Your task to perform on an android device: What's the weather going to be tomorrow? Image 0: 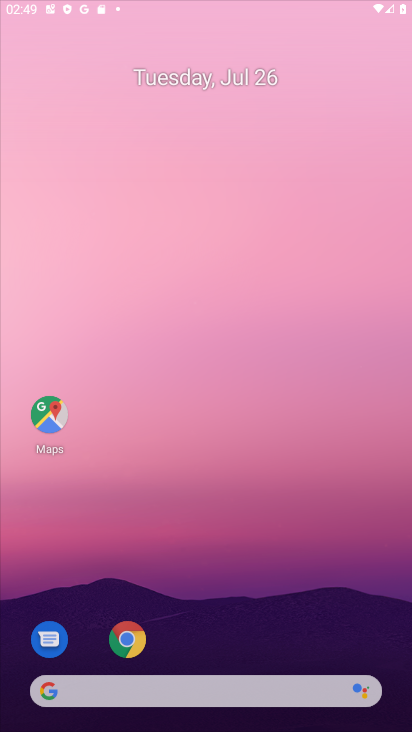
Step 0: press home button
Your task to perform on an android device: What's the weather going to be tomorrow? Image 1: 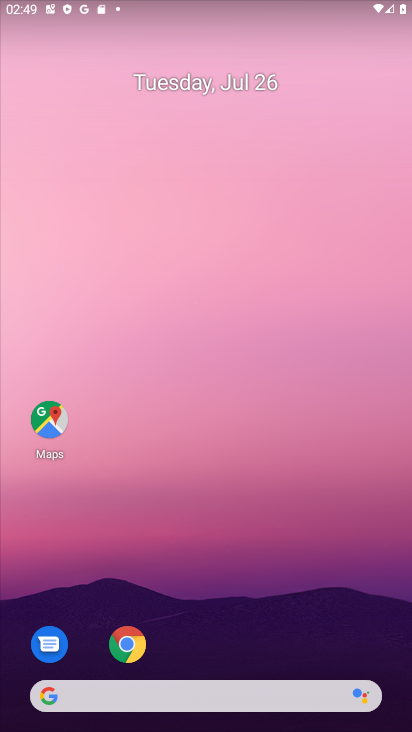
Step 1: click (193, 698)
Your task to perform on an android device: What's the weather going to be tomorrow? Image 2: 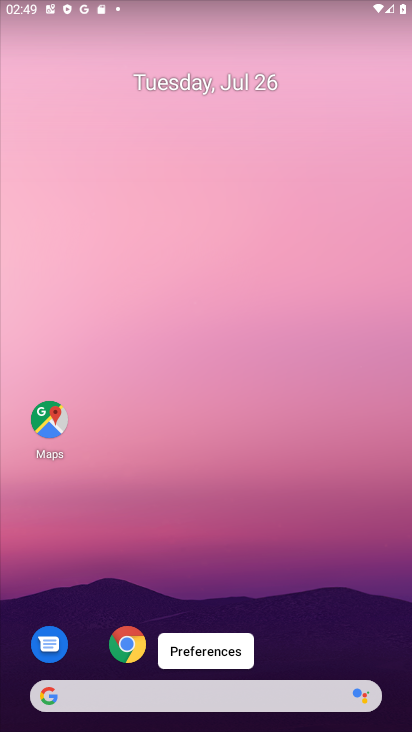
Step 2: click (228, 694)
Your task to perform on an android device: What's the weather going to be tomorrow? Image 3: 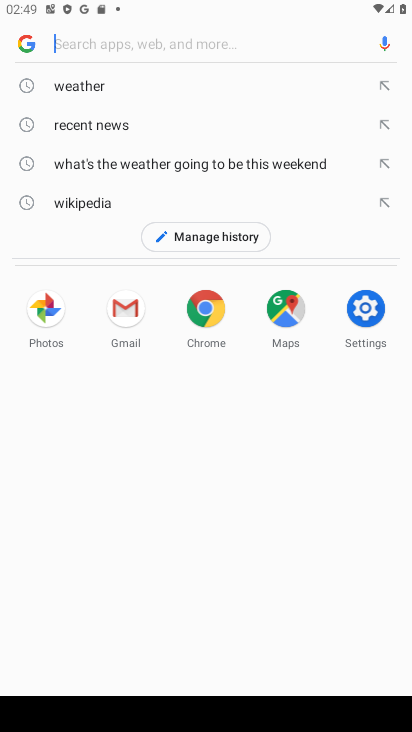
Step 3: click (66, 83)
Your task to perform on an android device: What's the weather going to be tomorrow? Image 4: 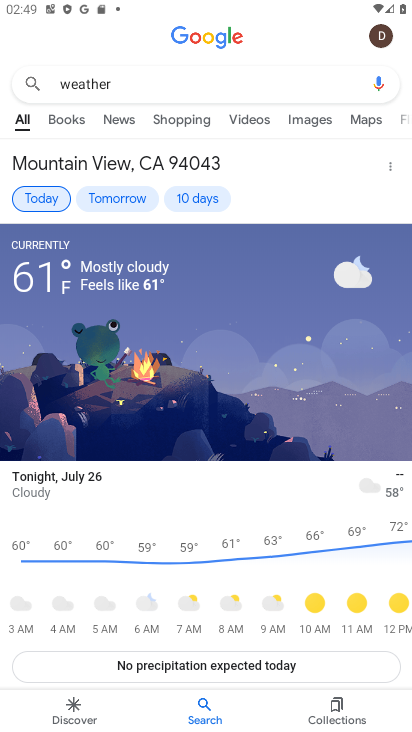
Step 4: click (126, 205)
Your task to perform on an android device: What's the weather going to be tomorrow? Image 5: 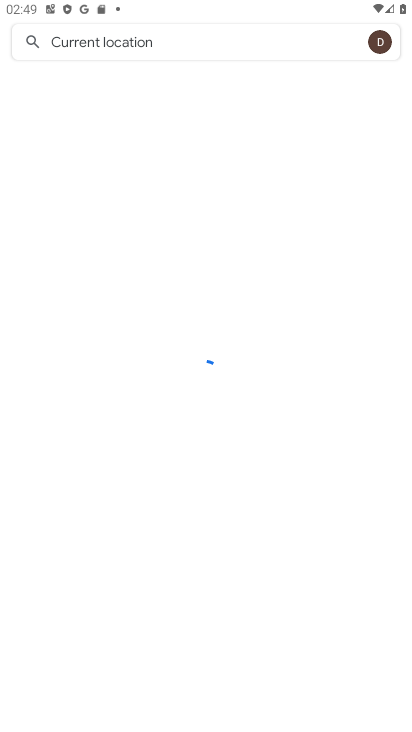
Step 5: task complete